Your task to perform on an android device: turn pop-ups off in chrome Image 0: 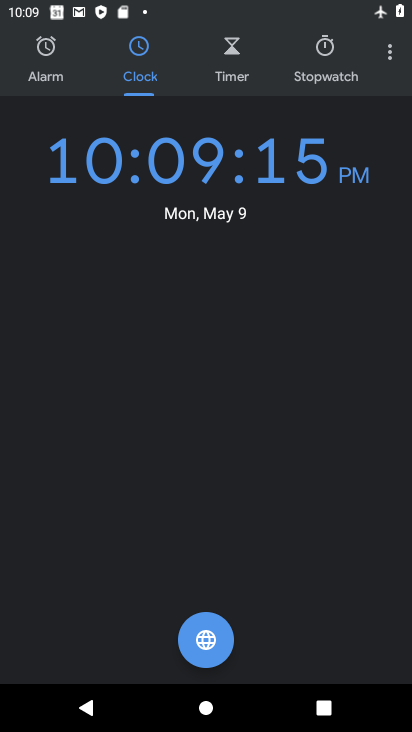
Step 0: press home button
Your task to perform on an android device: turn pop-ups off in chrome Image 1: 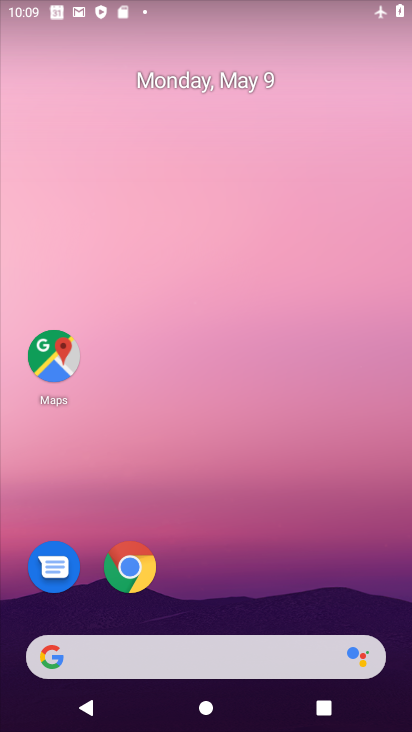
Step 1: click (150, 571)
Your task to perform on an android device: turn pop-ups off in chrome Image 2: 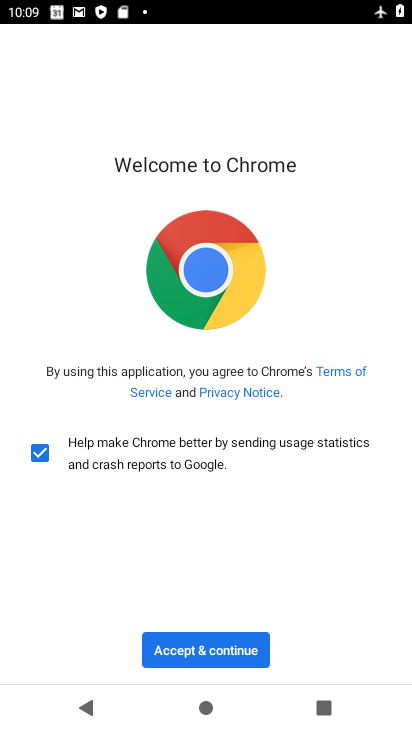
Step 2: click (250, 638)
Your task to perform on an android device: turn pop-ups off in chrome Image 3: 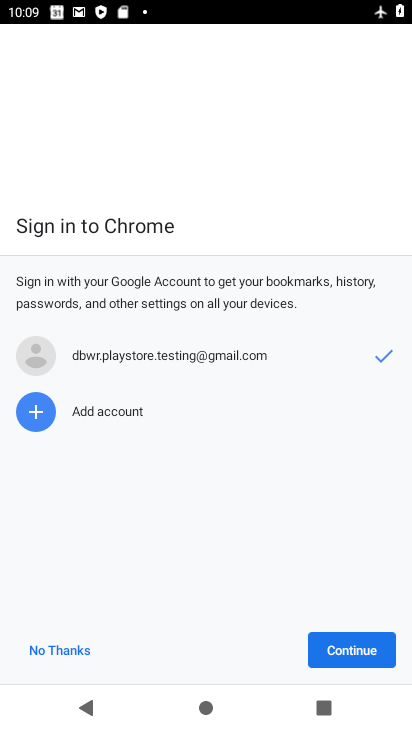
Step 3: click (342, 658)
Your task to perform on an android device: turn pop-ups off in chrome Image 4: 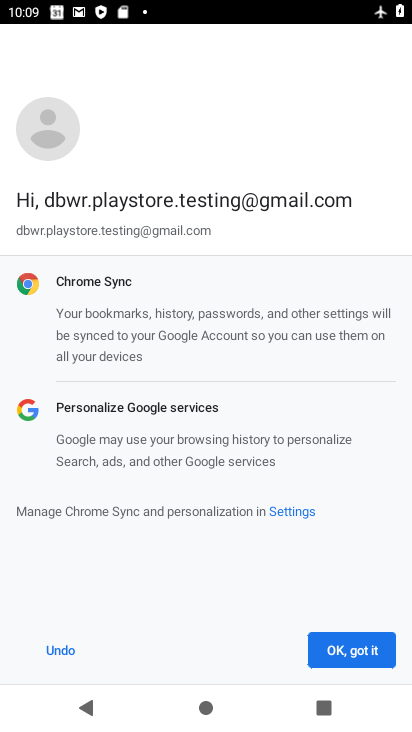
Step 4: click (358, 647)
Your task to perform on an android device: turn pop-ups off in chrome Image 5: 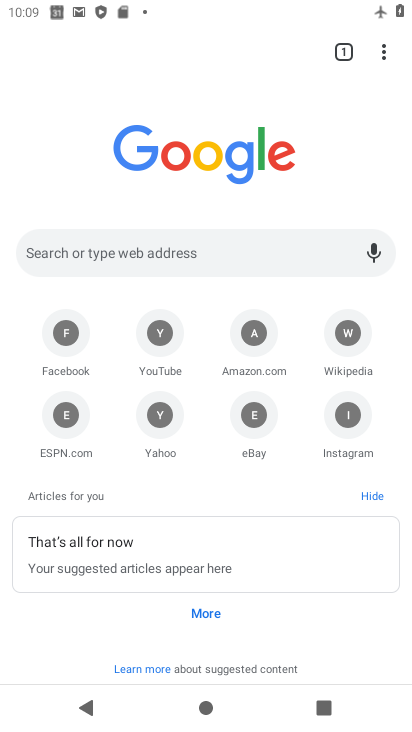
Step 5: drag from (381, 51) to (222, 428)
Your task to perform on an android device: turn pop-ups off in chrome Image 6: 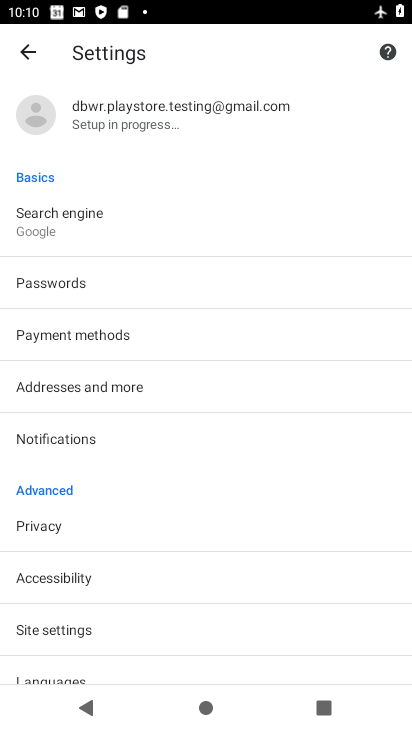
Step 6: click (100, 614)
Your task to perform on an android device: turn pop-ups off in chrome Image 7: 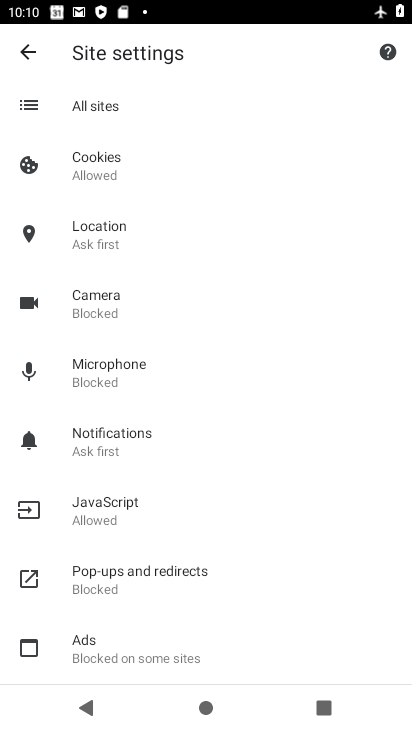
Step 7: click (153, 564)
Your task to perform on an android device: turn pop-ups off in chrome Image 8: 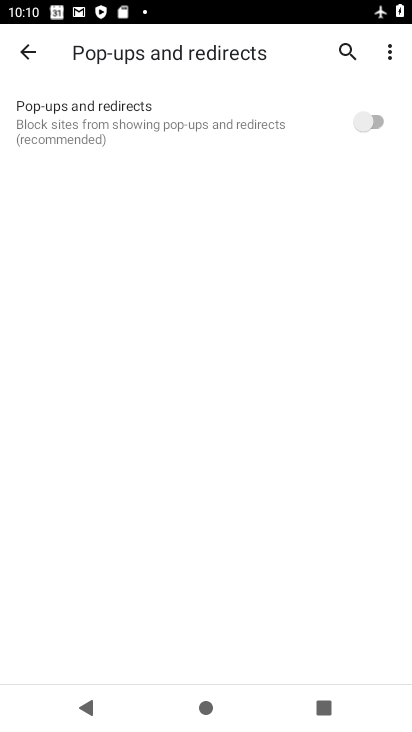
Step 8: task complete